Your task to perform on an android device: star an email in the gmail app Image 0: 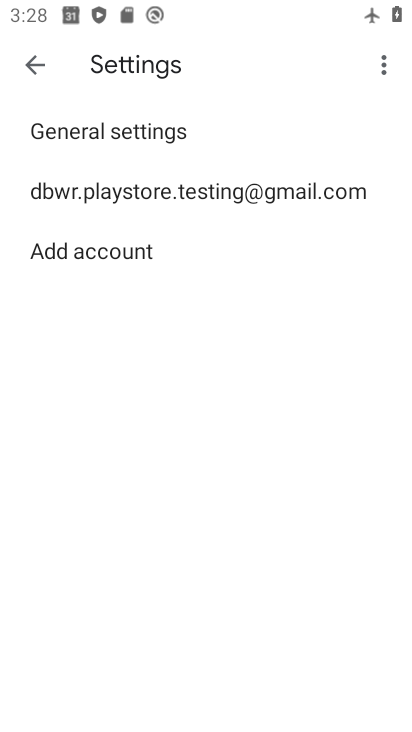
Step 0: press home button
Your task to perform on an android device: star an email in the gmail app Image 1: 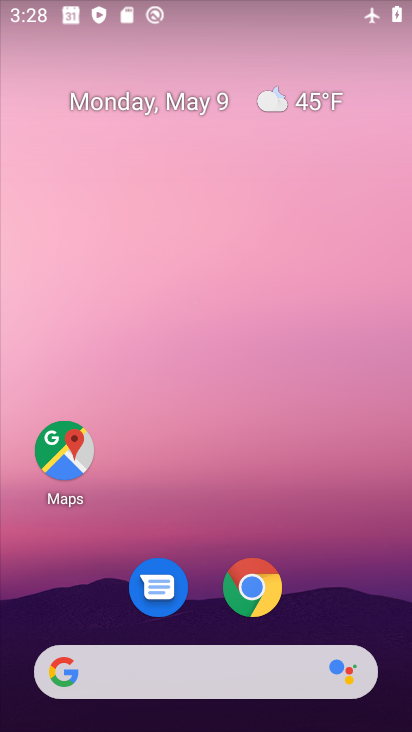
Step 1: drag from (389, 544) to (355, 200)
Your task to perform on an android device: star an email in the gmail app Image 2: 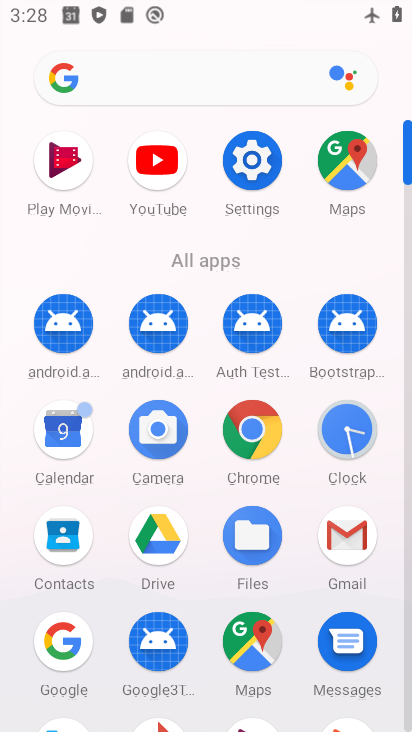
Step 2: click (348, 544)
Your task to perform on an android device: star an email in the gmail app Image 3: 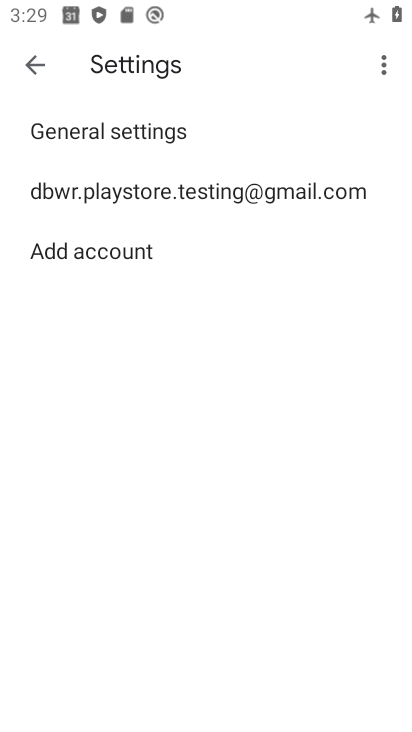
Step 3: click (38, 66)
Your task to perform on an android device: star an email in the gmail app Image 4: 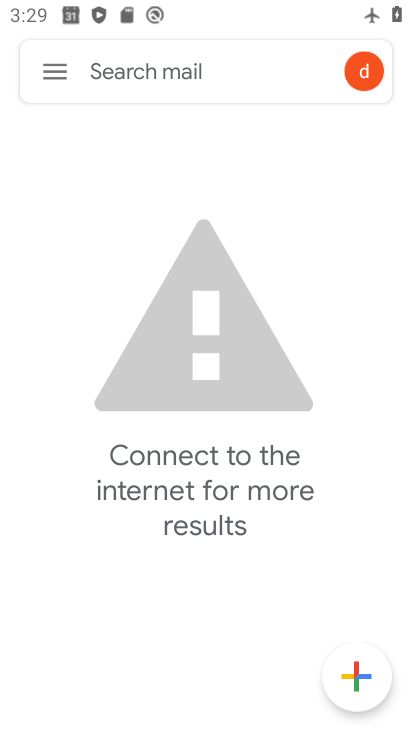
Step 4: click (54, 78)
Your task to perform on an android device: star an email in the gmail app Image 5: 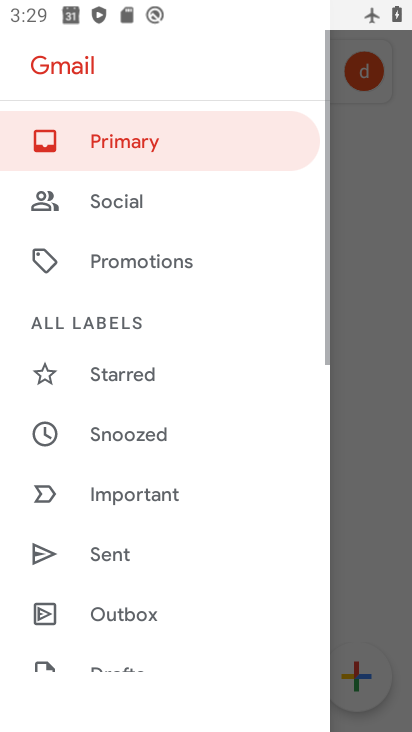
Step 5: click (101, 133)
Your task to perform on an android device: star an email in the gmail app Image 6: 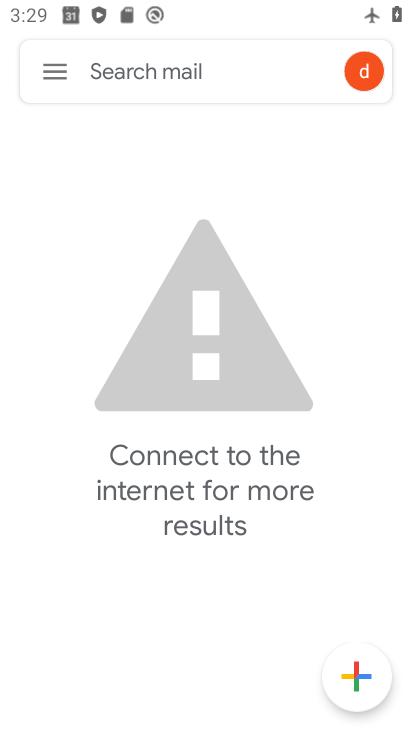
Step 6: task complete